Your task to perform on an android device: toggle priority inbox in the gmail app Image 0: 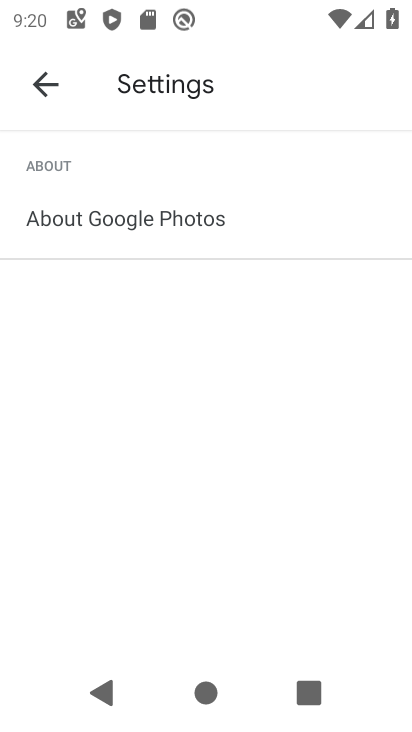
Step 0: press home button
Your task to perform on an android device: toggle priority inbox in the gmail app Image 1: 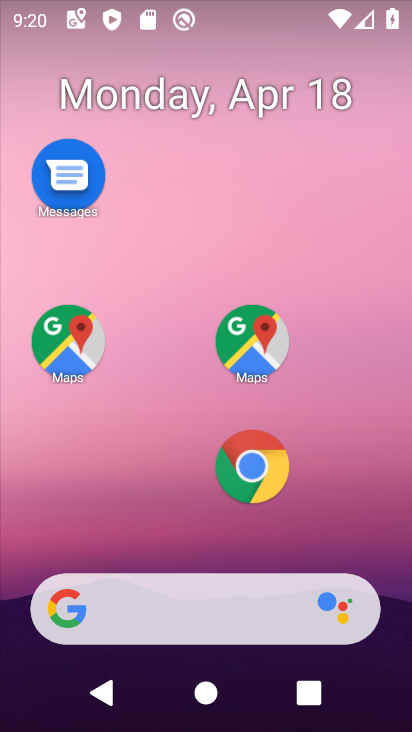
Step 1: drag from (171, 553) to (267, 4)
Your task to perform on an android device: toggle priority inbox in the gmail app Image 2: 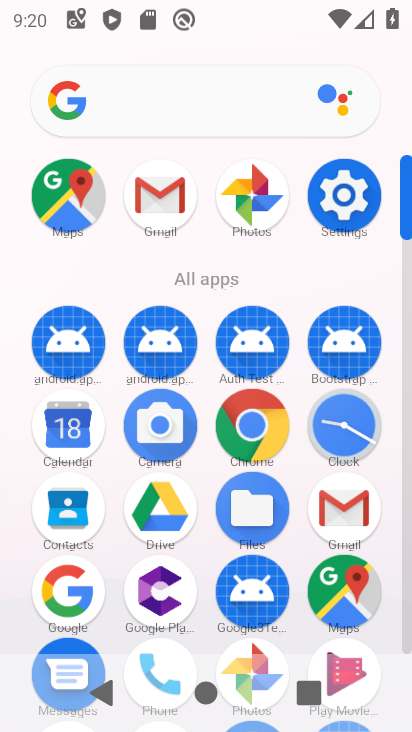
Step 2: click (358, 517)
Your task to perform on an android device: toggle priority inbox in the gmail app Image 3: 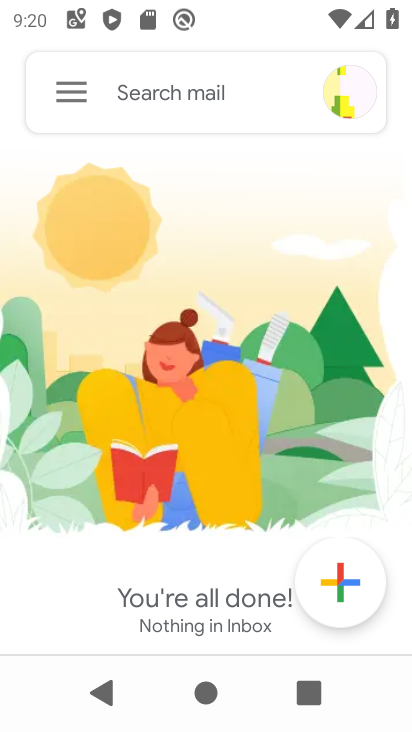
Step 3: click (64, 96)
Your task to perform on an android device: toggle priority inbox in the gmail app Image 4: 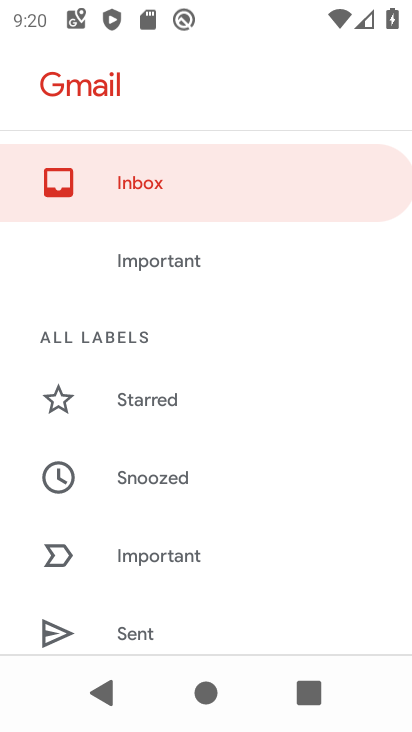
Step 4: drag from (127, 552) to (204, 20)
Your task to perform on an android device: toggle priority inbox in the gmail app Image 5: 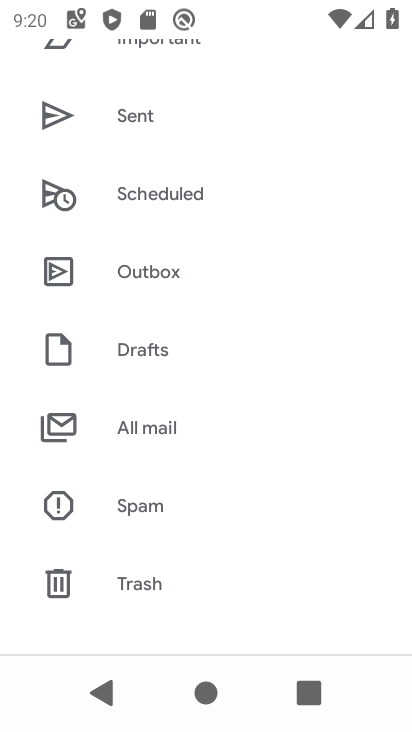
Step 5: drag from (112, 529) to (196, 13)
Your task to perform on an android device: toggle priority inbox in the gmail app Image 6: 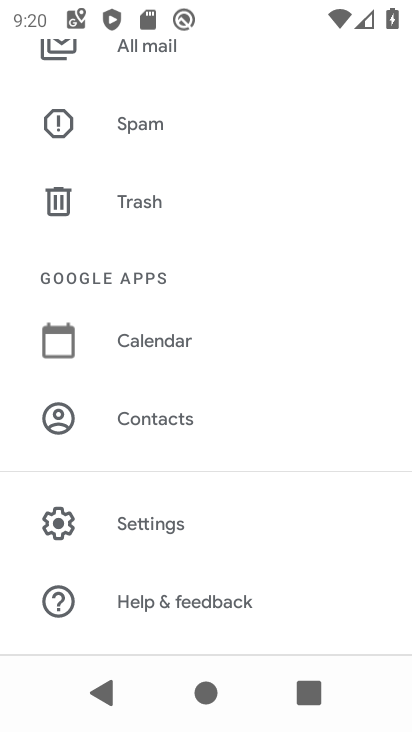
Step 6: click (161, 533)
Your task to perform on an android device: toggle priority inbox in the gmail app Image 7: 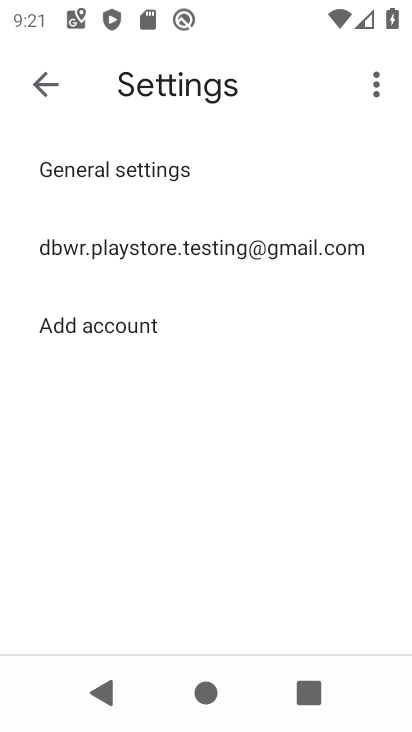
Step 7: click (154, 246)
Your task to perform on an android device: toggle priority inbox in the gmail app Image 8: 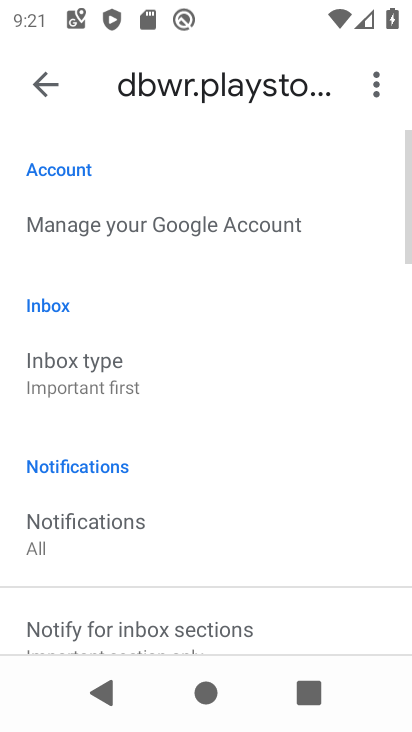
Step 8: click (110, 378)
Your task to perform on an android device: toggle priority inbox in the gmail app Image 9: 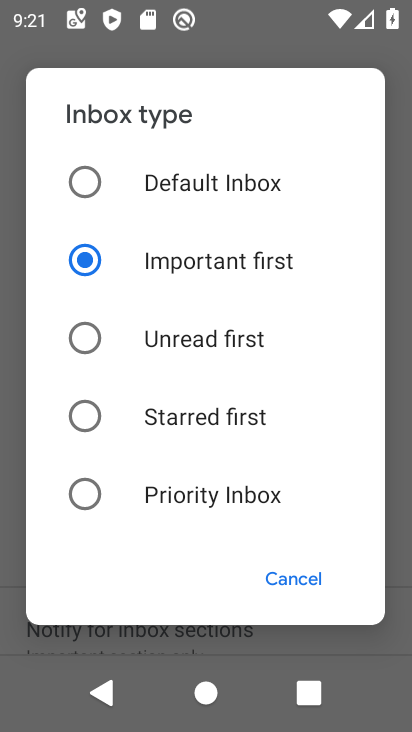
Step 9: click (90, 492)
Your task to perform on an android device: toggle priority inbox in the gmail app Image 10: 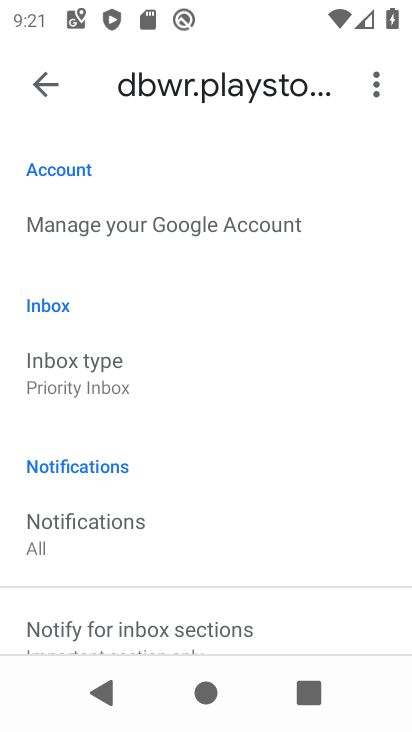
Step 10: task complete